Your task to perform on an android device: Go to Wikipedia Image 0: 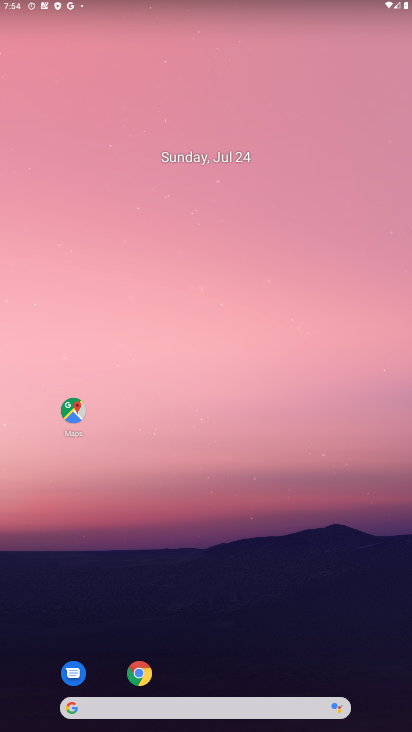
Step 0: click (111, 704)
Your task to perform on an android device: Go to Wikipedia Image 1: 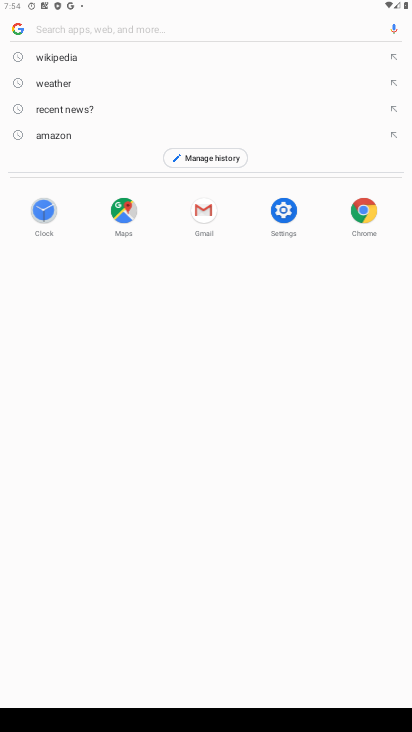
Step 1: click (67, 57)
Your task to perform on an android device: Go to Wikipedia Image 2: 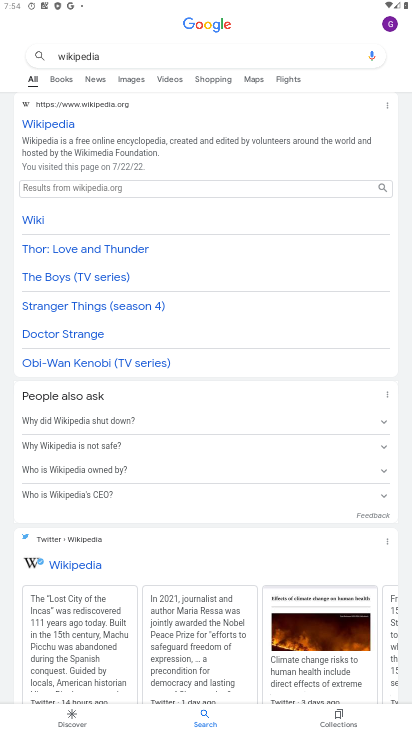
Step 2: task complete